Your task to perform on an android device: Go to network settings Image 0: 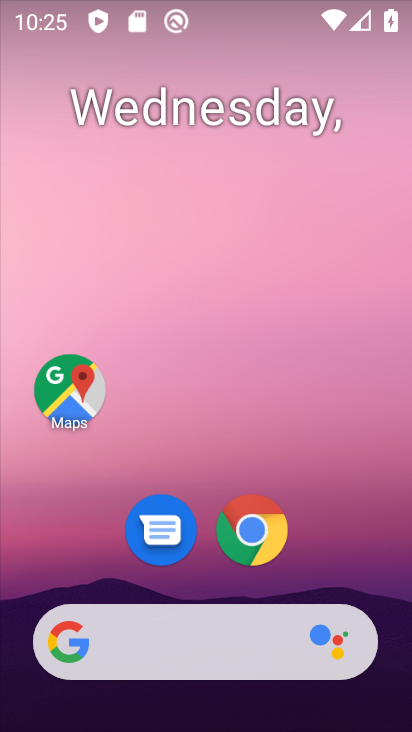
Step 0: drag from (122, 464) to (320, 12)
Your task to perform on an android device: Go to network settings Image 1: 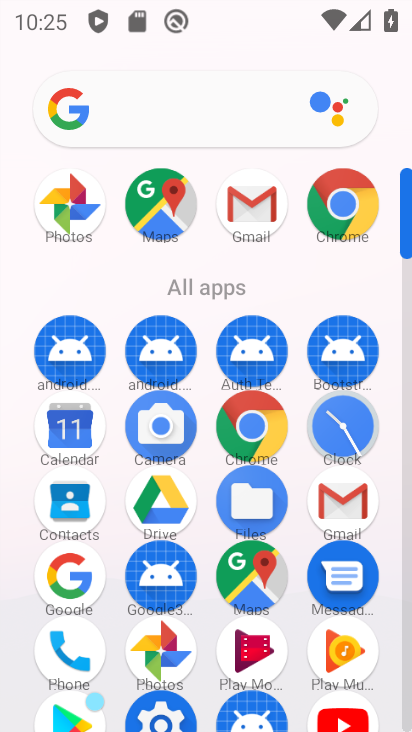
Step 1: drag from (163, 640) to (186, 421)
Your task to perform on an android device: Go to network settings Image 2: 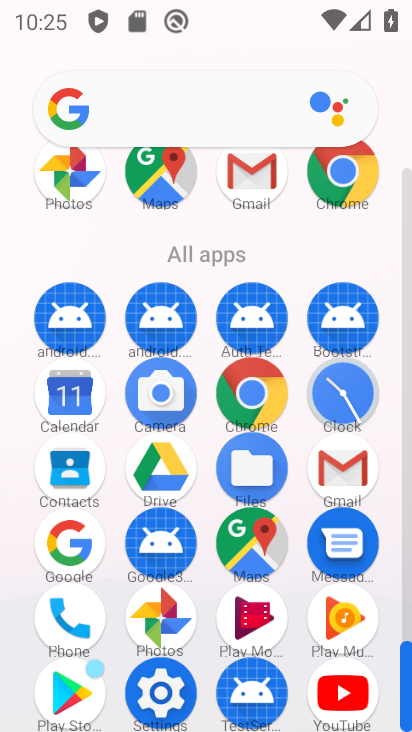
Step 2: click (167, 674)
Your task to perform on an android device: Go to network settings Image 3: 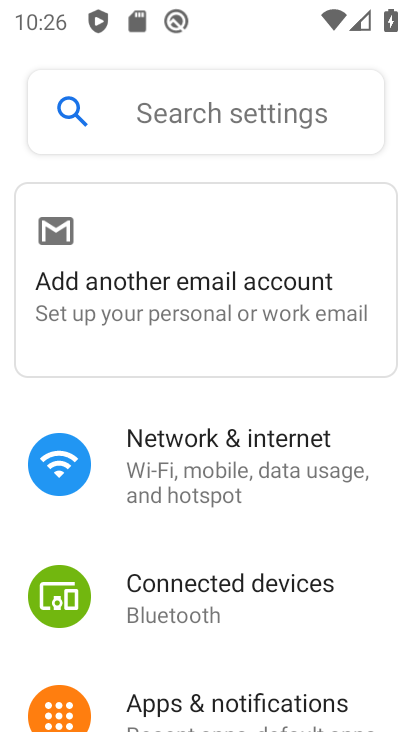
Step 3: drag from (222, 687) to (329, 290)
Your task to perform on an android device: Go to network settings Image 4: 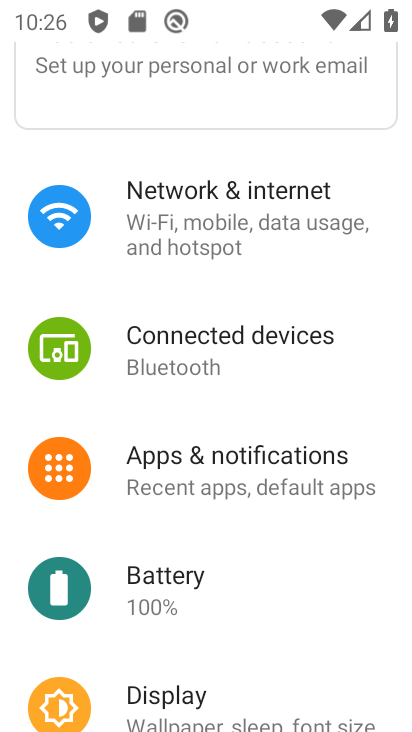
Step 4: click (182, 248)
Your task to perform on an android device: Go to network settings Image 5: 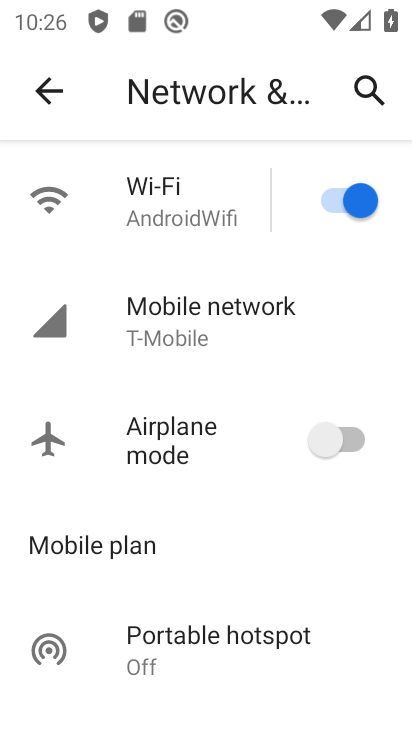
Step 5: task complete